Your task to perform on an android device: set the timer Image 0: 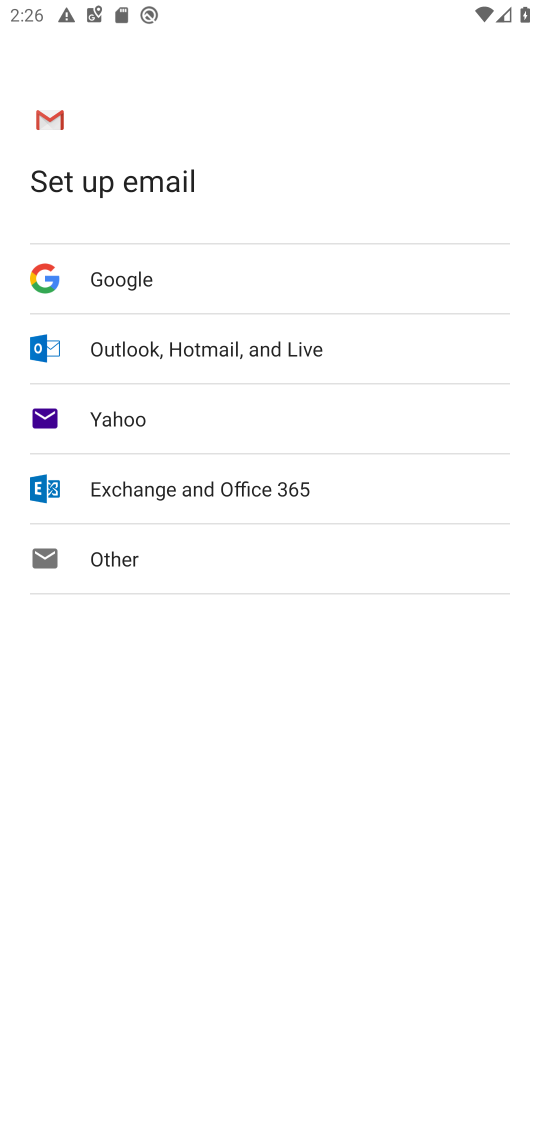
Step 0: press home button
Your task to perform on an android device: set the timer Image 1: 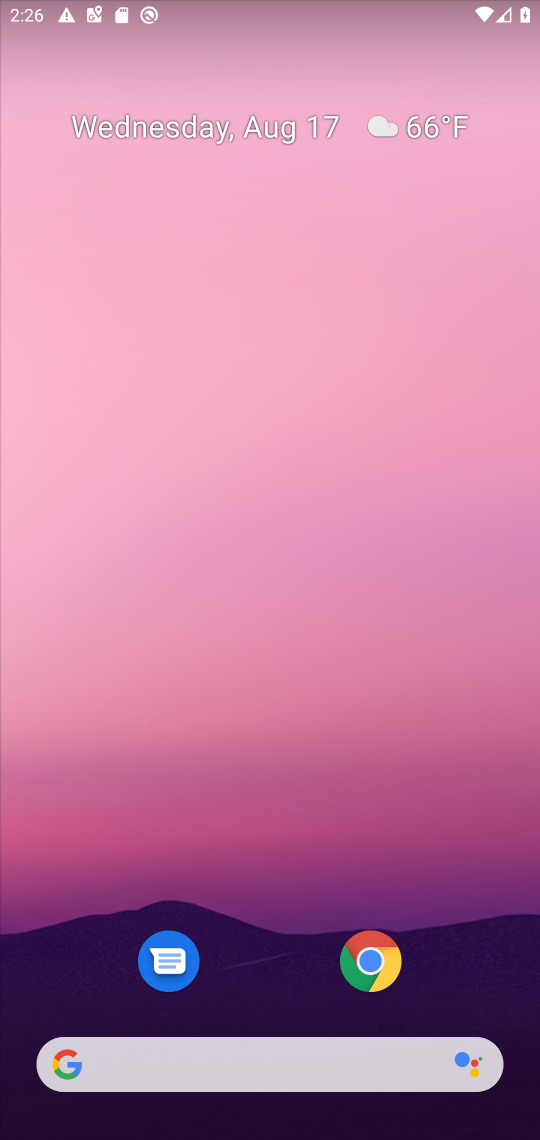
Step 1: drag from (359, 490) to (368, 3)
Your task to perform on an android device: set the timer Image 2: 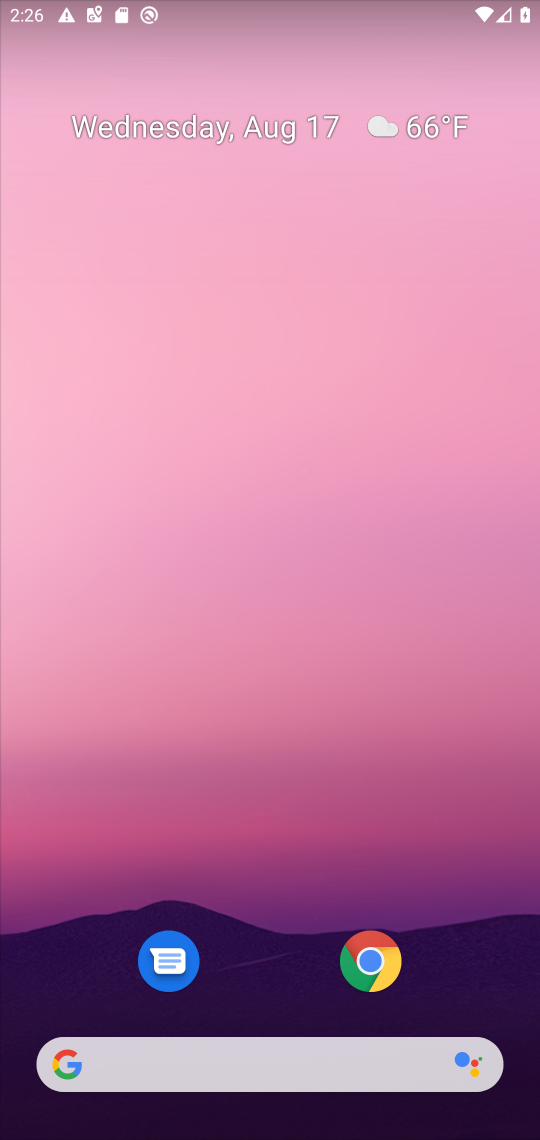
Step 2: drag from (282, 1033) to (400, 32)
Your task to perform on an android device: set the timer Image 3: 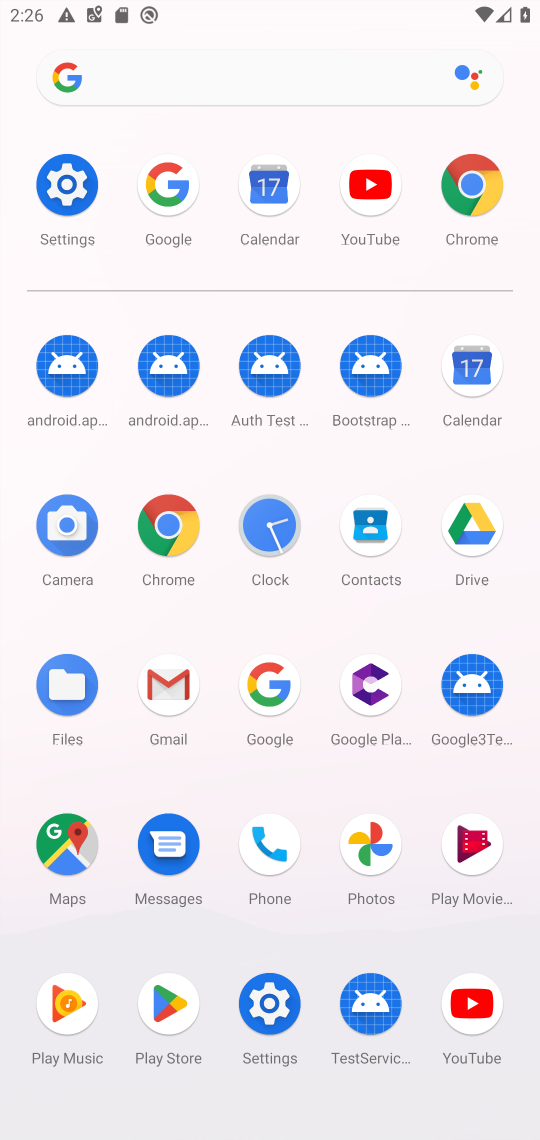
Step 3: click (286, 531)
Your task to perform on an android device: set the timer Image 4: 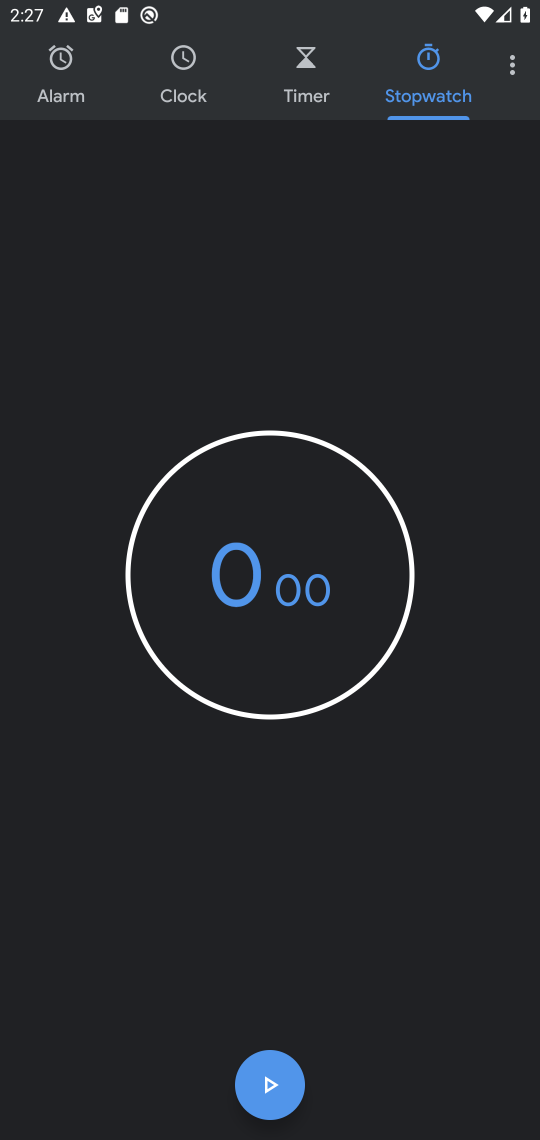
Step 4: click (294, 96)
Your task to perform on an android device: set the timer Image 5: 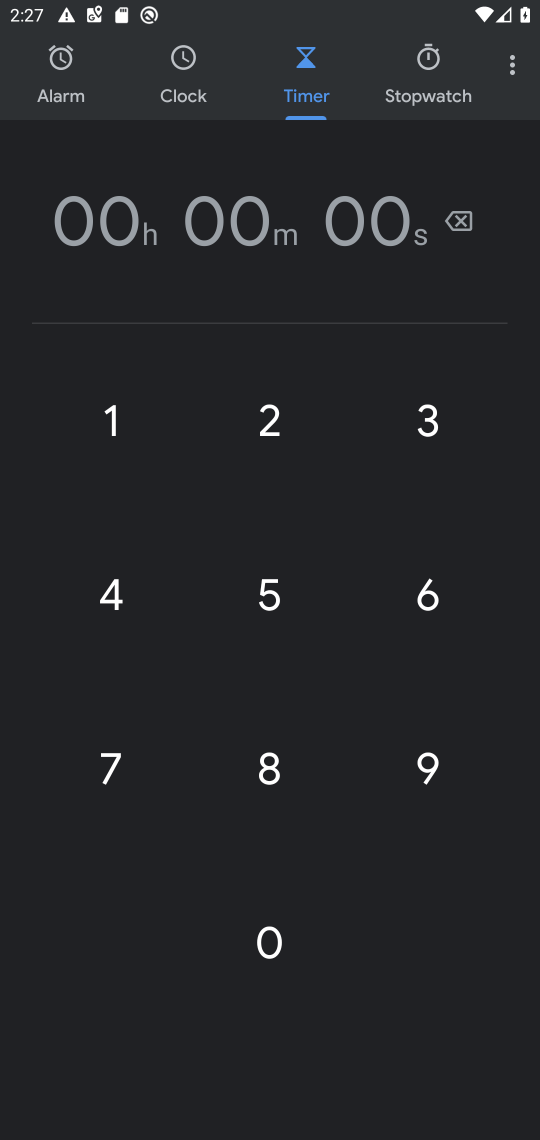
Step 5: click (146, 424)
Your task to perform on an android device: set the timer Image 6: 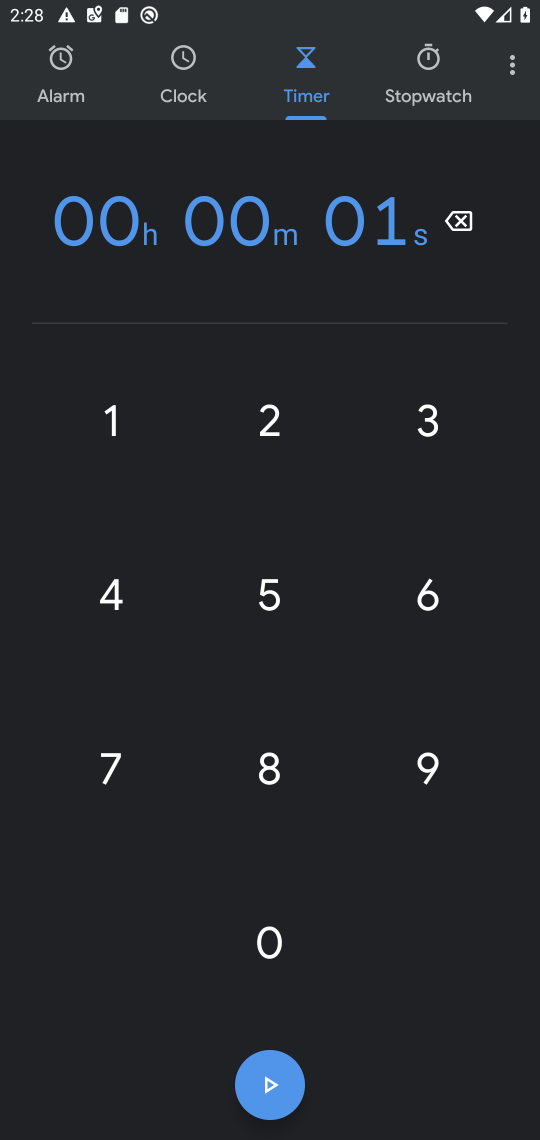
Step 6: click (274, 1100)
Your task to perform on an android device: set the timer Image 7: 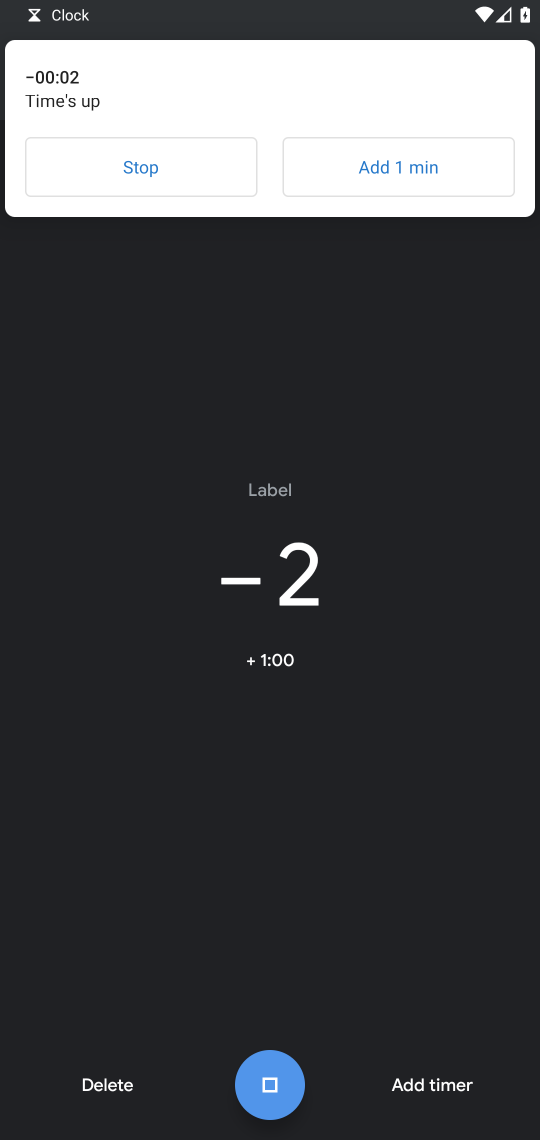
Step 7: task complete